Your task to perform on an android device: Search for "alienware aurora" on amazon, select the first entry, add it to the cart, then select checkout. Image 0: 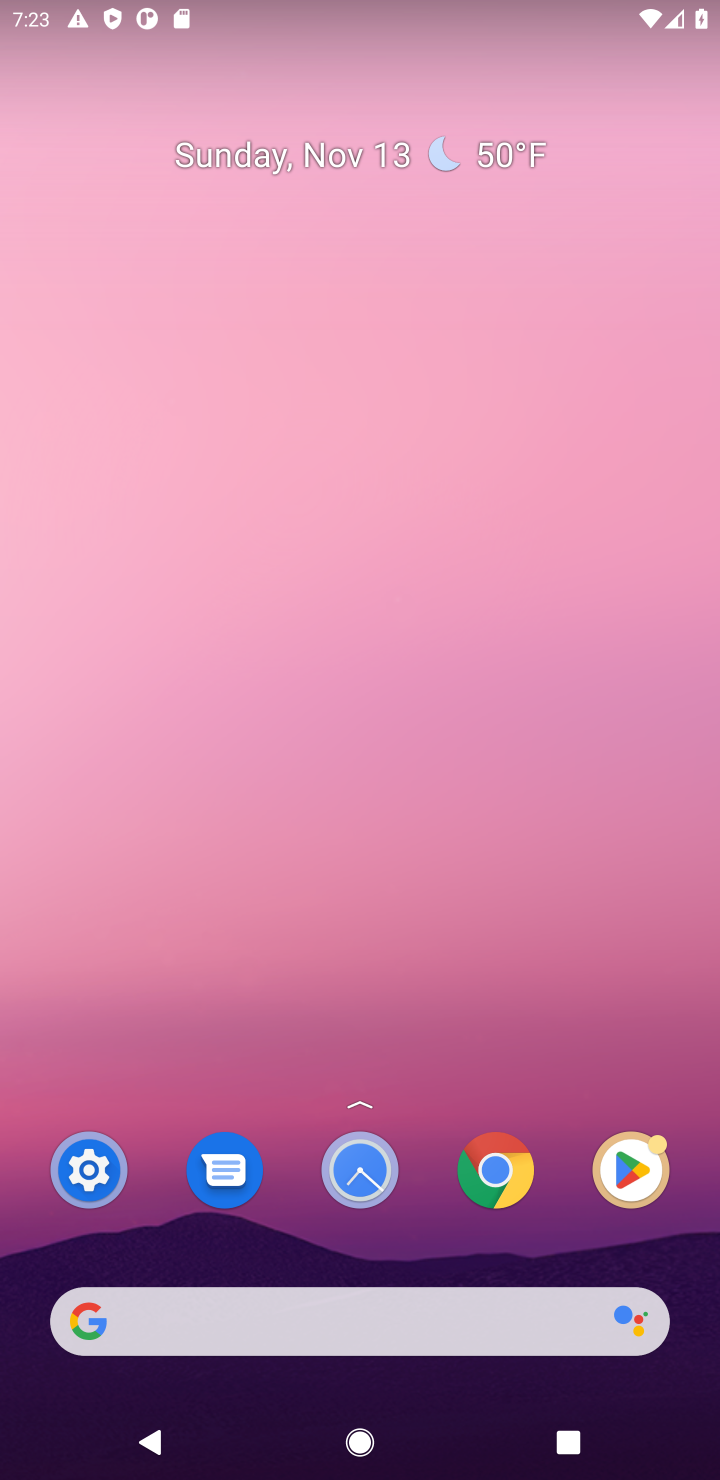
Step 0: click (312, 1322)
Your task to perform on an android device: Search for "alienware aurora" on amazon, select the first entry, add it to the cart, then select checkout. Image 1: 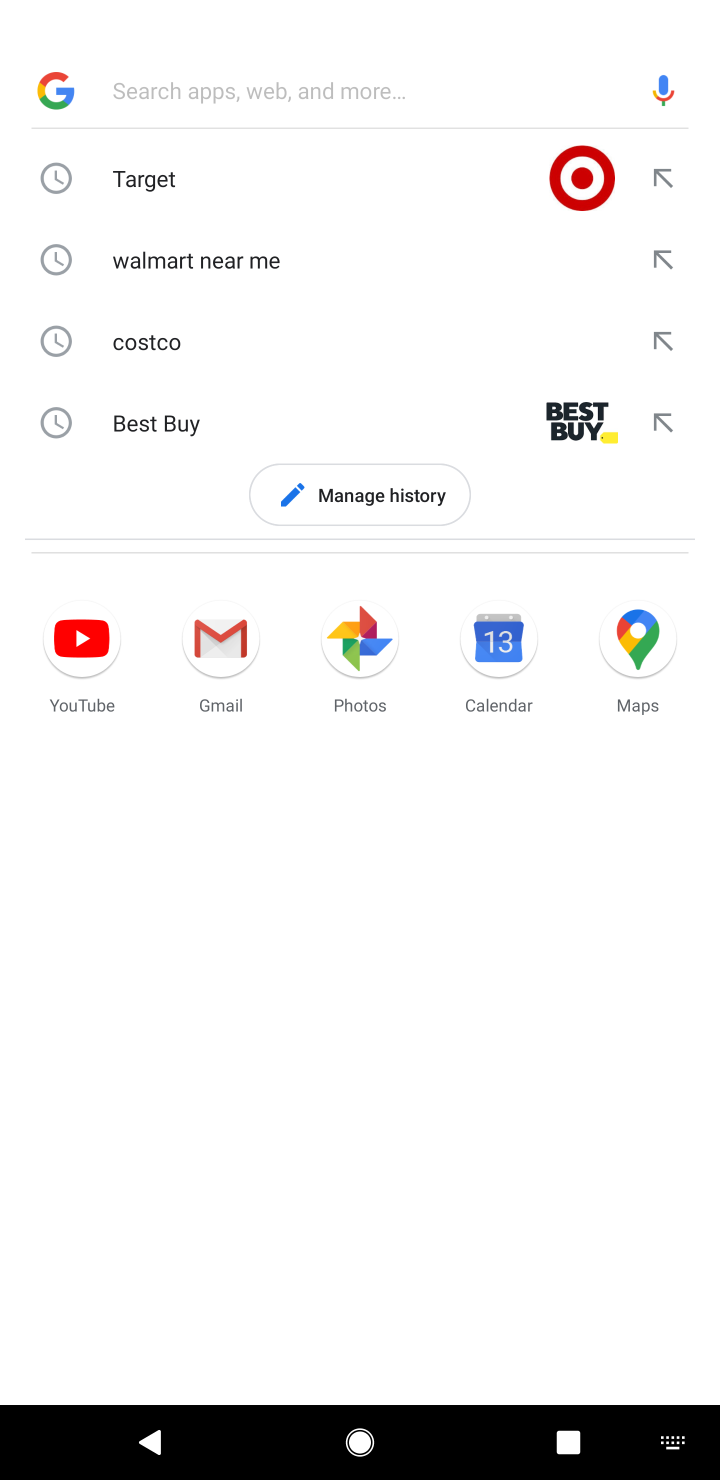
Step 1: type "amazon"
Your task to perform on an android device: Search for "alienware aurora" on amazon, select the first entry, add it to the cart, then select checkout. Image 2: 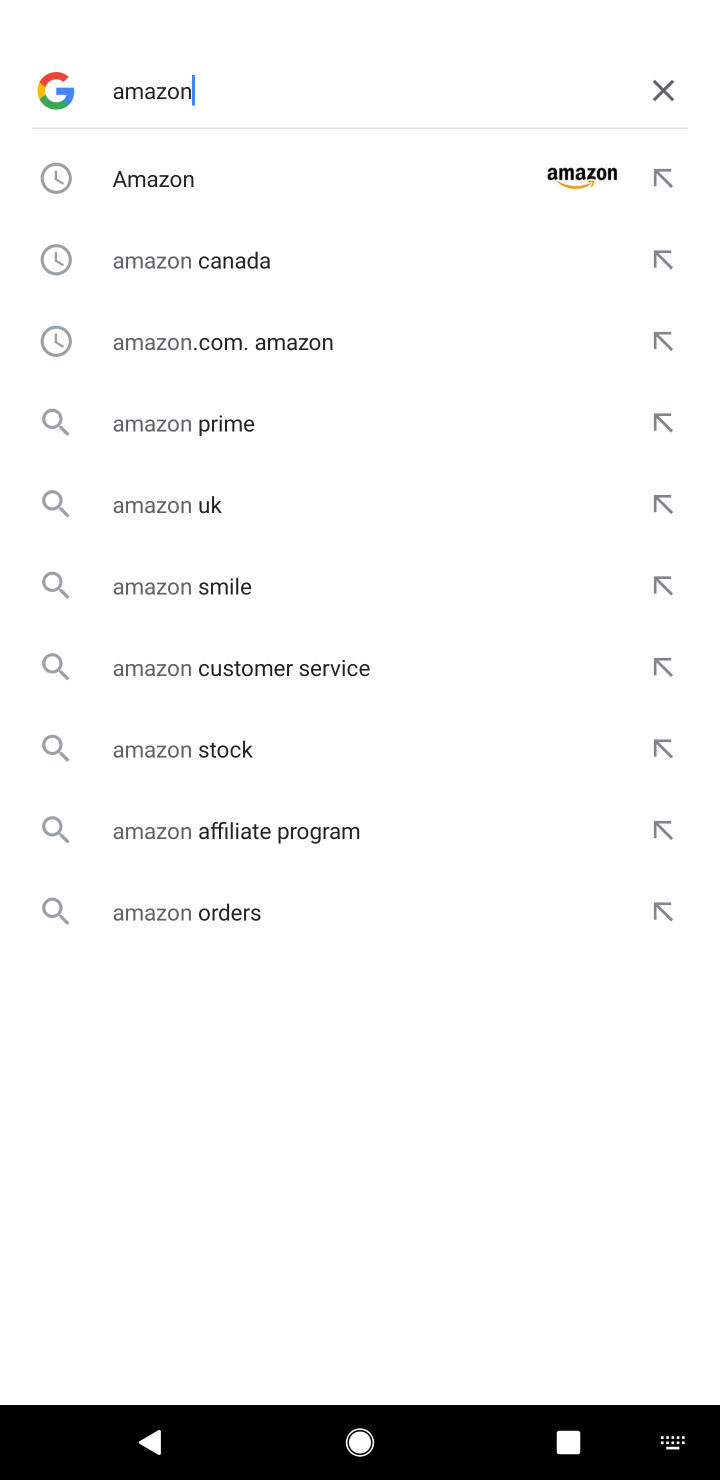
Step 2: click (246, 188)
Your task to perform on an android device: Search for "alienware aurora" on amazon, select the first entry, add it to the cart, then select checkout. Image 3: 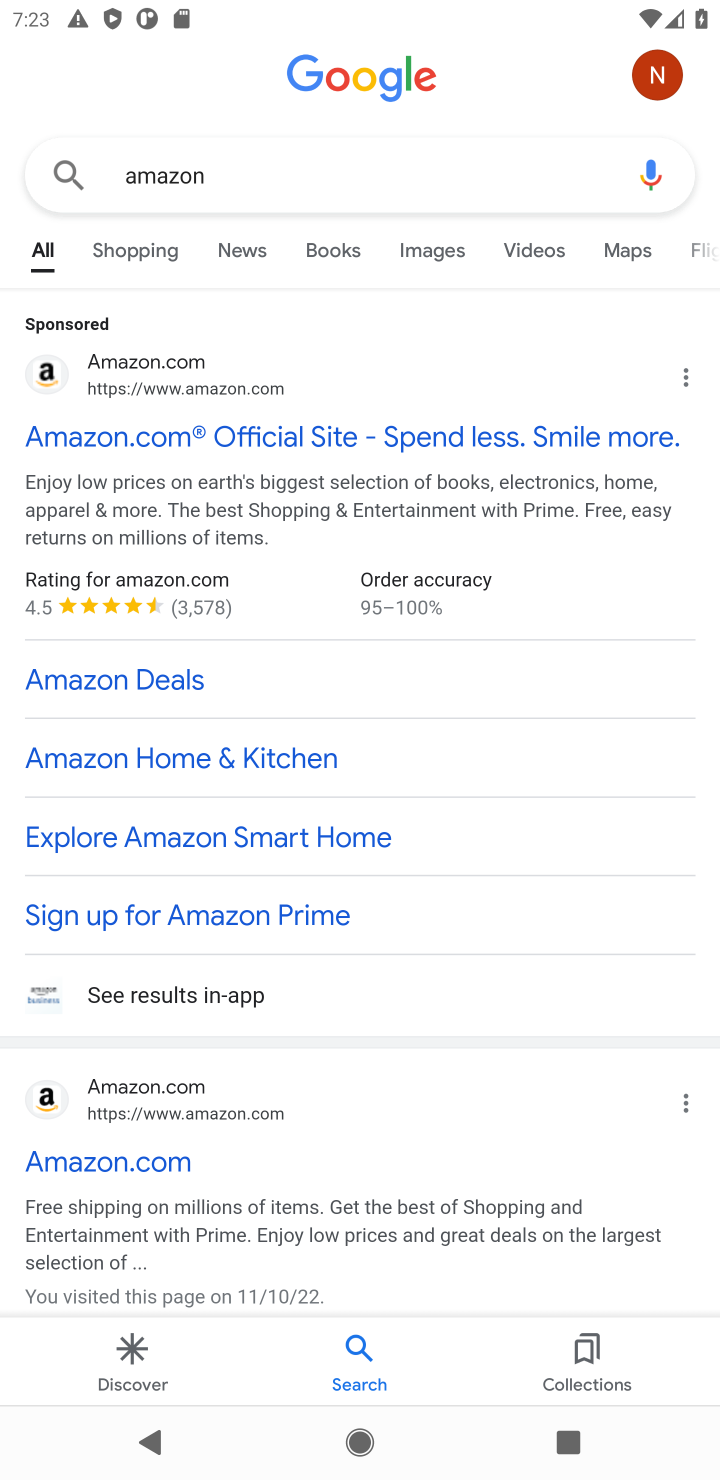
Step 3: click (227, 450)
Your task to perform on an android device: Search for "alienware aurora" on amazon, select the first entry, add it to the cart, then select checkout. Image 4: 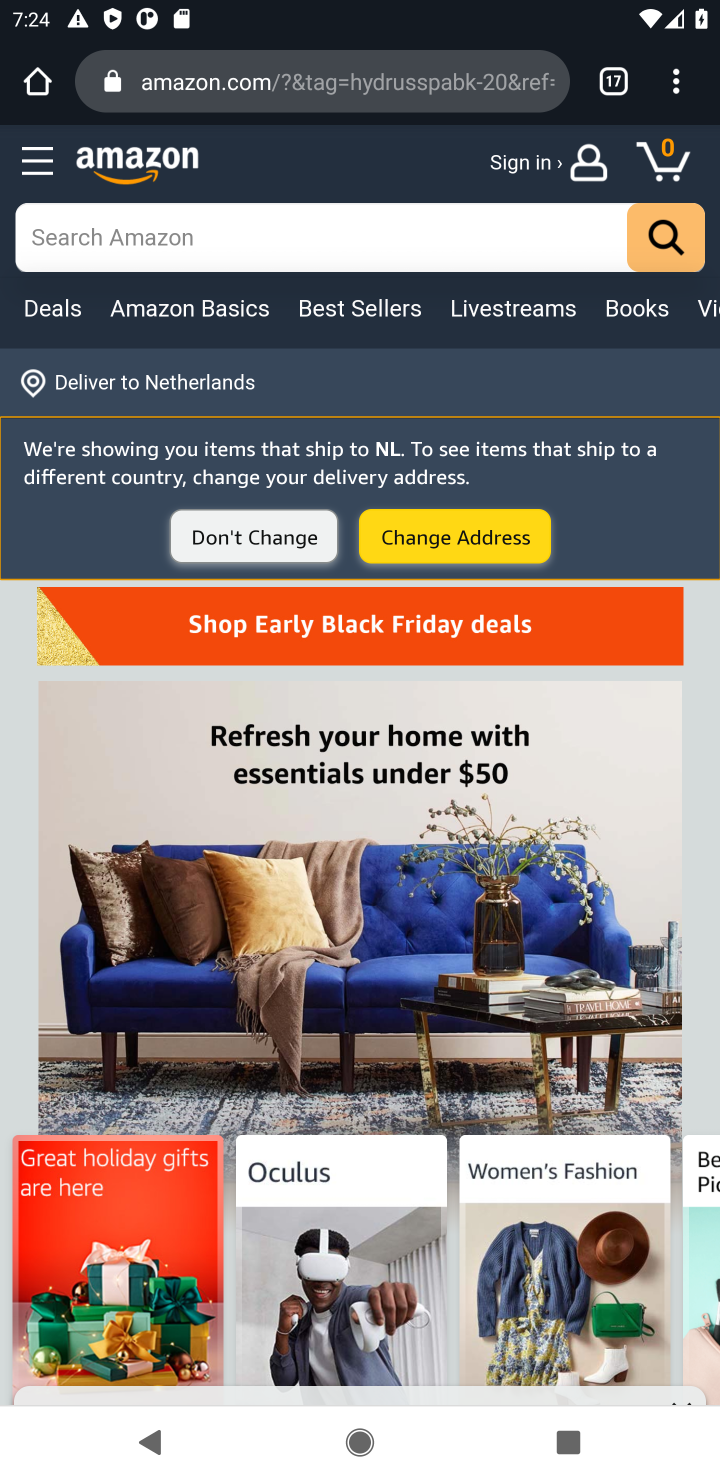
Step 4: click (368, 227)
Your task to perform on an android device: Search for "alienware aurora" on amazon, select the first entry, add it to the cart, then select checkout. Image 5: 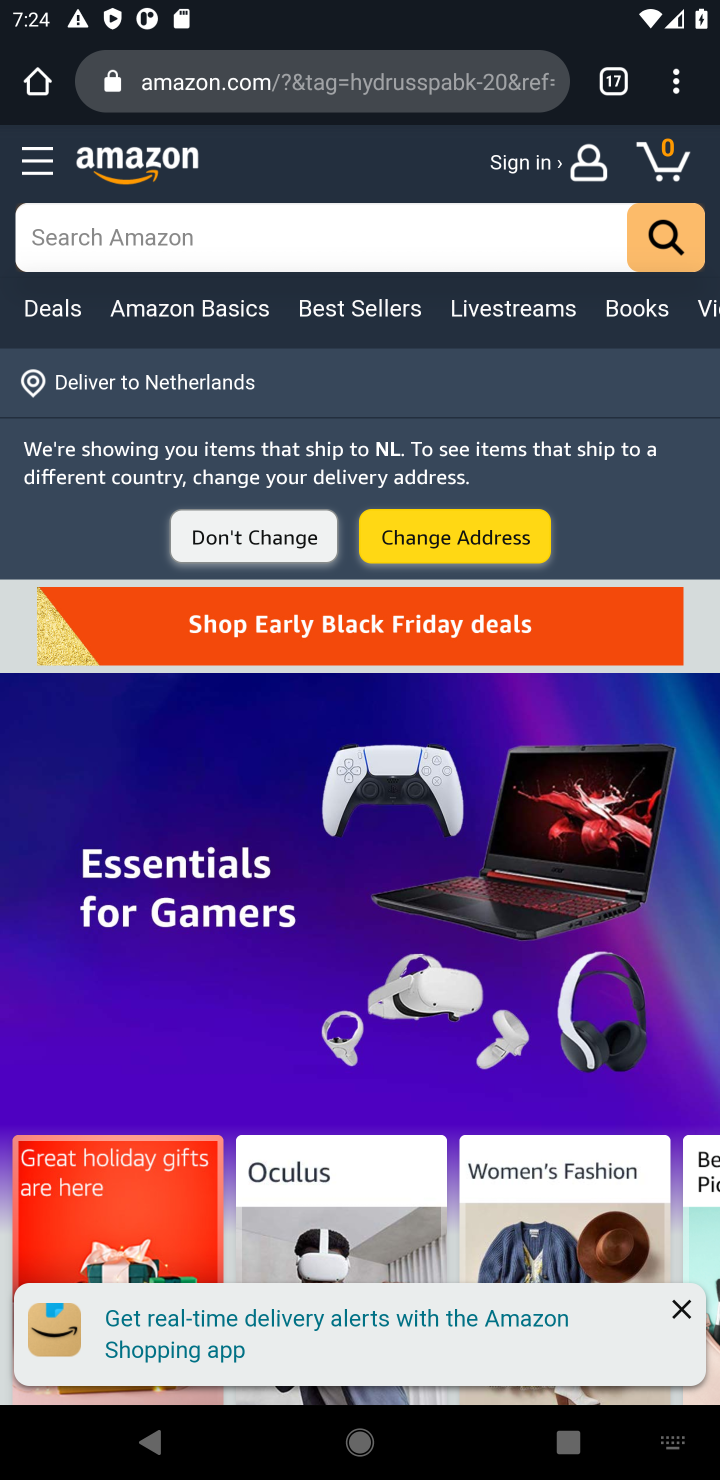
Step 5: type "alienware aurora"
Your task to perform on an android device: Search for "alienware aurora" on amazon, select the first entry, add it to the cart, then select checkout. Image 6: 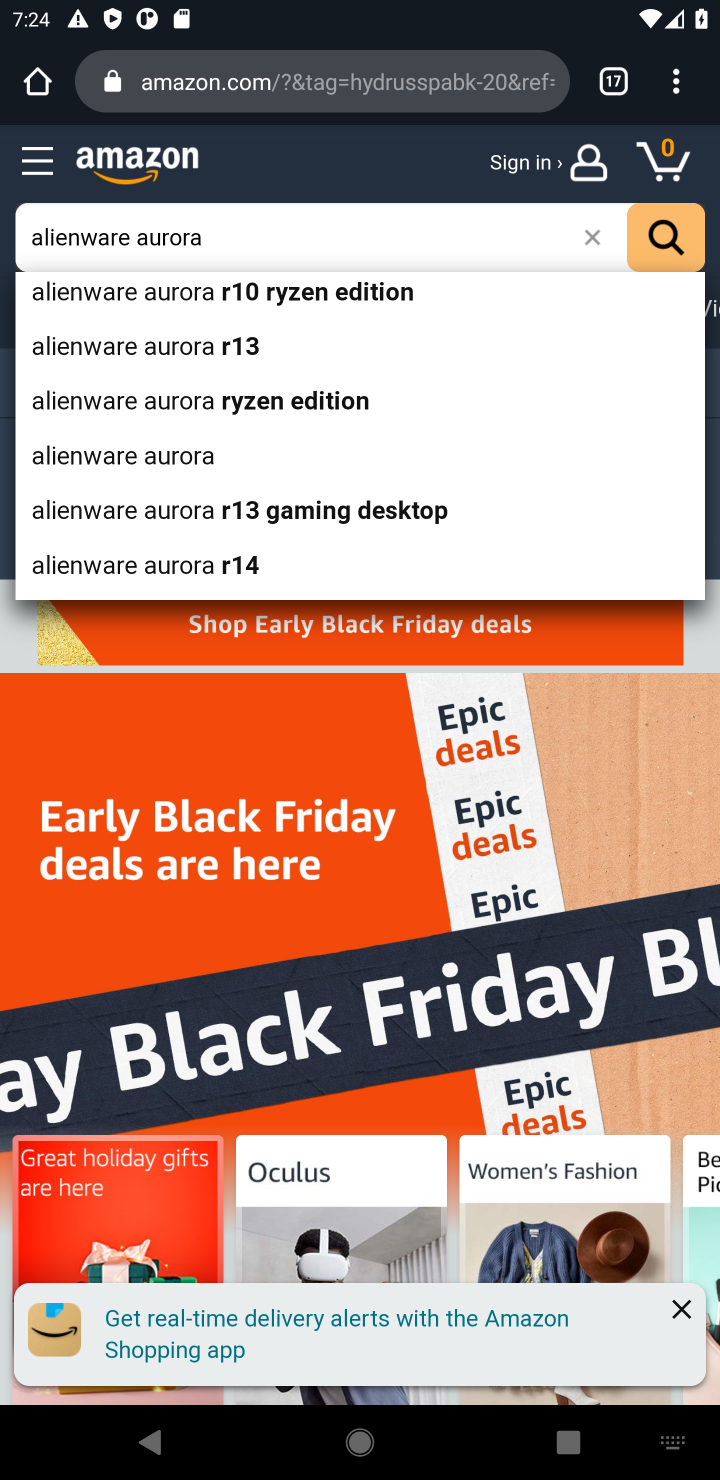
Step 6: click (300, 359)
Your task to perform on an android device: Search for "alienware aurora" on amazon, select the first entry, add it to the cart, then select checkout. Image 7: 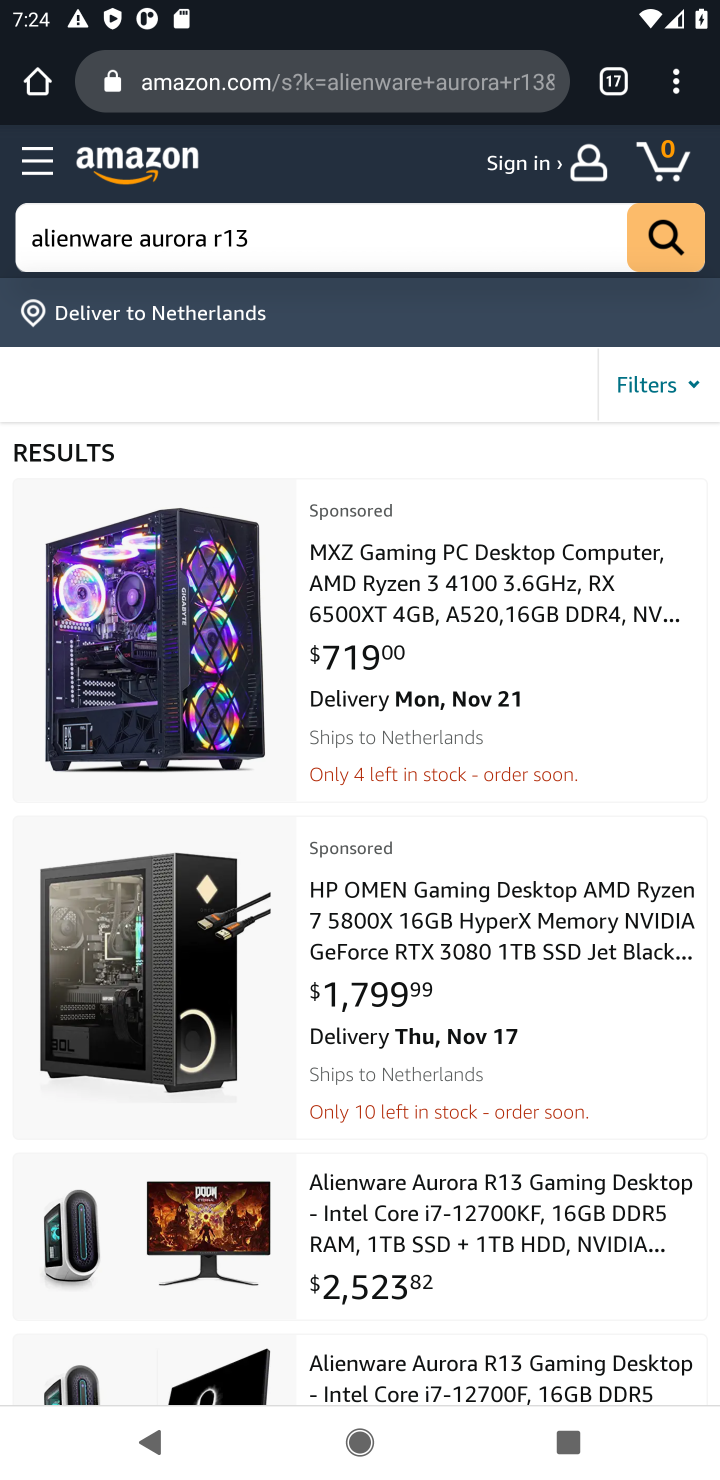
Step 7: click (306, 591)
Your task to perform on an android device: Search for "alienware aurora" on amazon, select the first entry, add it to the cart, then select checkout. Image 8: 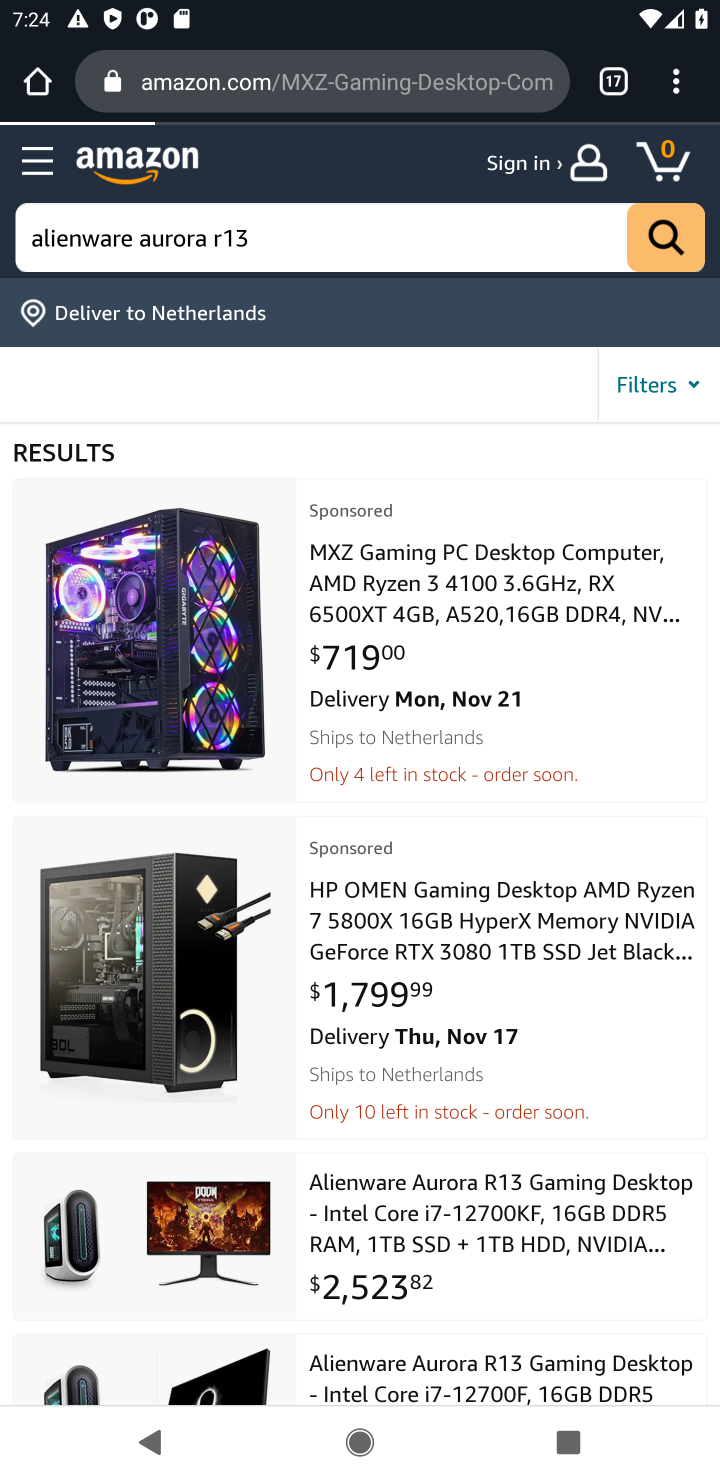
Step 8: task complete